Your task to perform on an android device: move a message to another label in the gmail app Image 0: 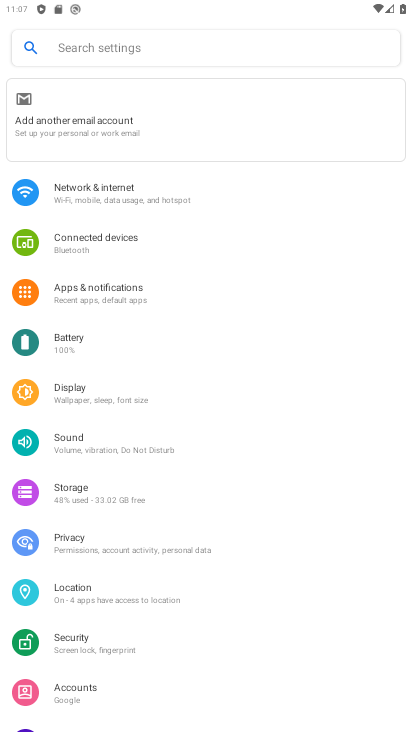
Step 0: press home button
Your task to perform on an android device: move a message to another label in the gmail app Image 1: 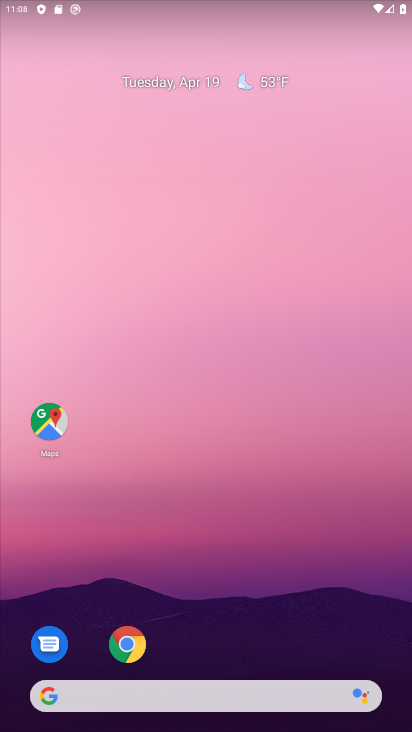
Step 1: drag from (226, 617) to (260, 19)
Your task to perform on an android device: move a message to another label in the gmail app Image 2: 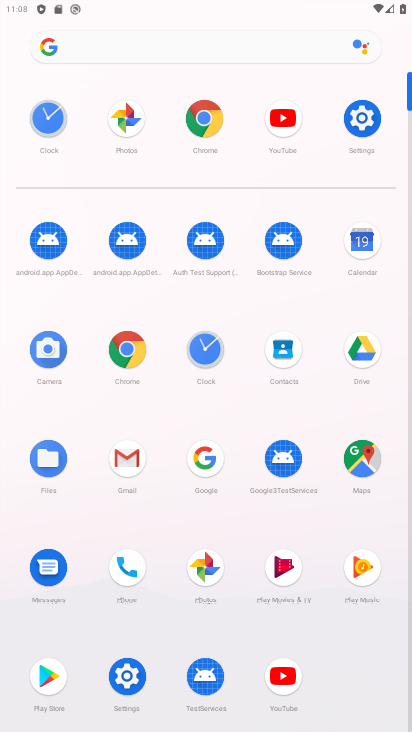
Step 2: click (132, 469)
Your task to perform on an android device: move a message to another label in the gmail app Image 3: 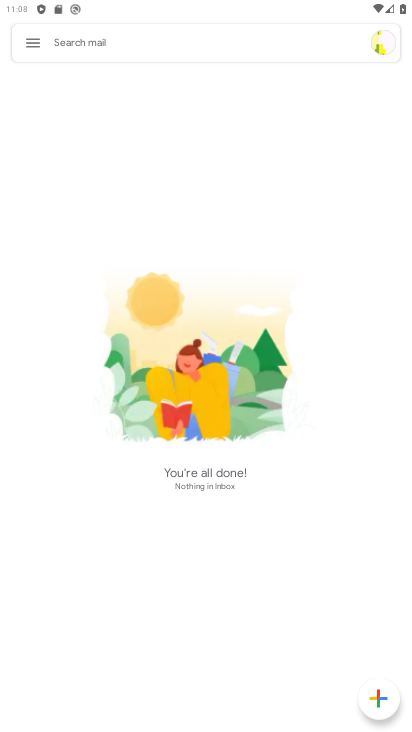
Step 3: click (33, 47)
Your task to perform on an android device: move a message to another label in the gmail app Image 4: 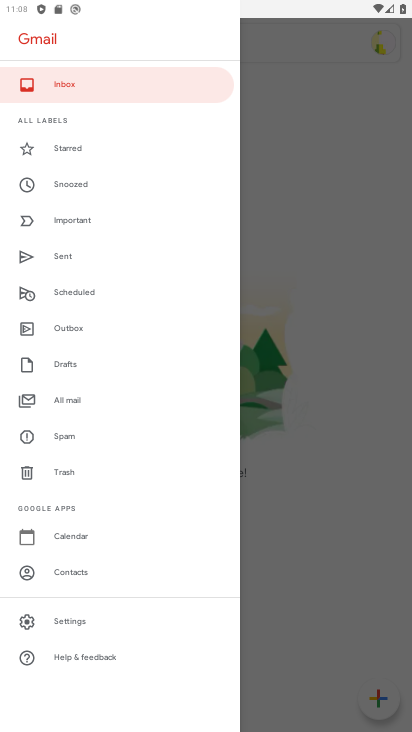
Step 4: click (74, 398)
Your task to perform on an android device: move a message to another label in the gmail app Image 5: 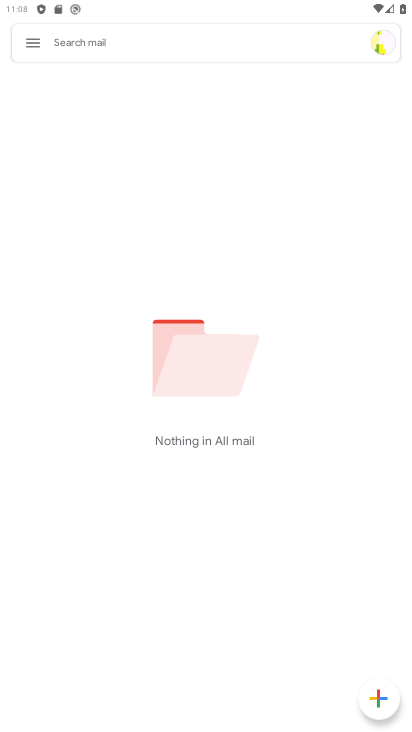
Step 5: task complete